Your task to perform on an android device: turn pop-ups off in chrome Image 0: 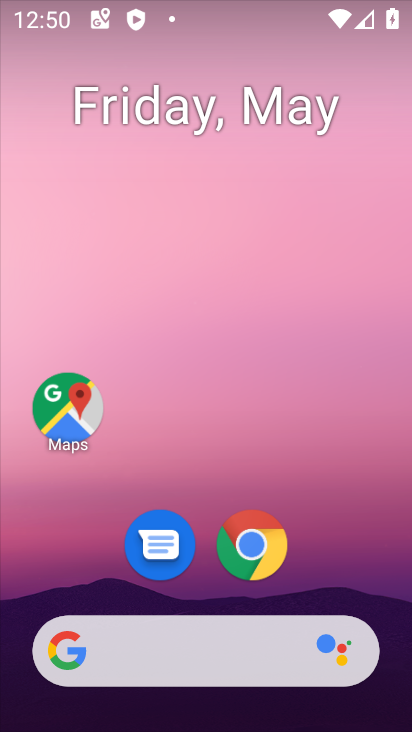
Step 0: click (257, 551)
Your task to perform on an android device: turn pop-ups off in chrome Image 1: 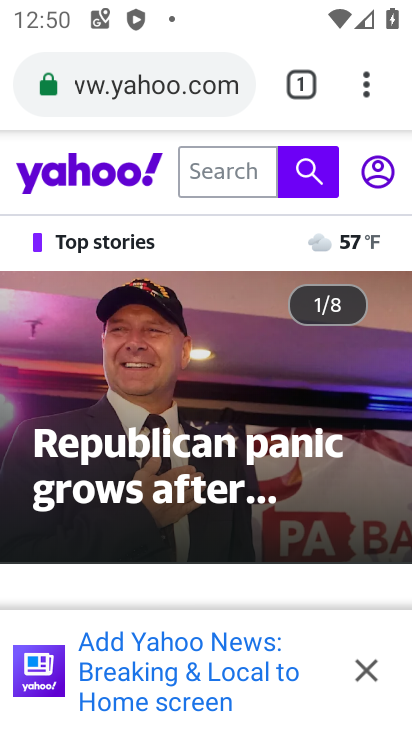
Step 1: click (365, 84)
Your task to perform on an android device: turn pop-ups off in chrome Image 2: 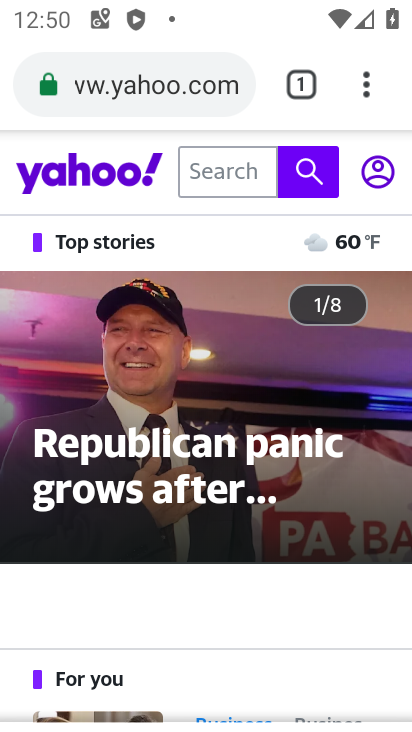
Step 2: click (365, 84)
Your task to perform on an android device: turn pop-ups off in chrome Image 3: 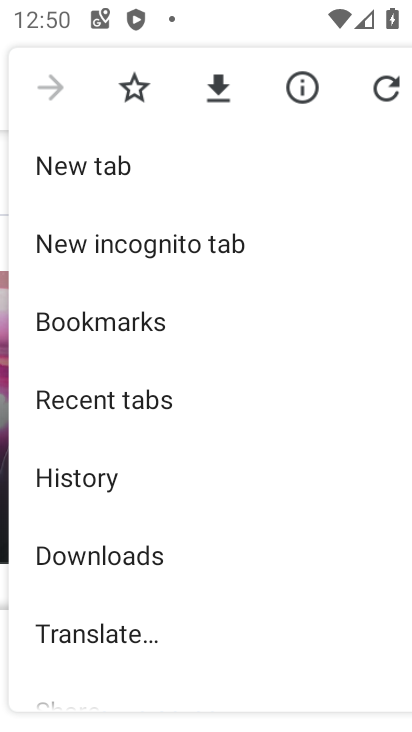
Step 3: drag from (218, 495) to (210, 61)
Your task to perform on an android device: turn pop-ups off in chrome Image 4: 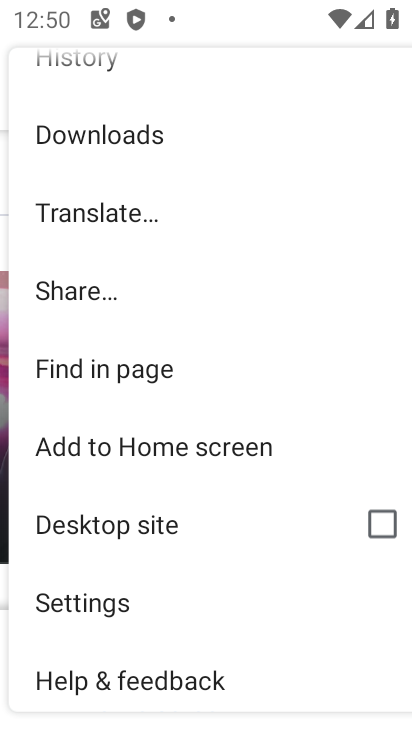
Step 4: drag from (263, 590) to (242, 53)
Your task to perform on an android device: turn pop-ups off in chrome Image 5: 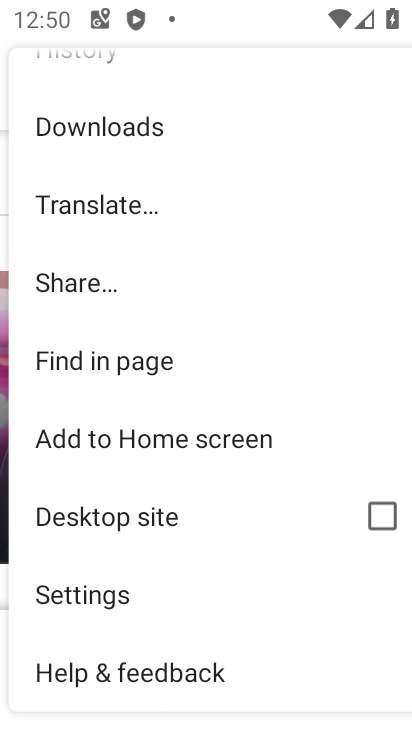
Step 5: click (112, 586)
Your task to perform on an android device: turn pop-ups off in chrome Image 6: 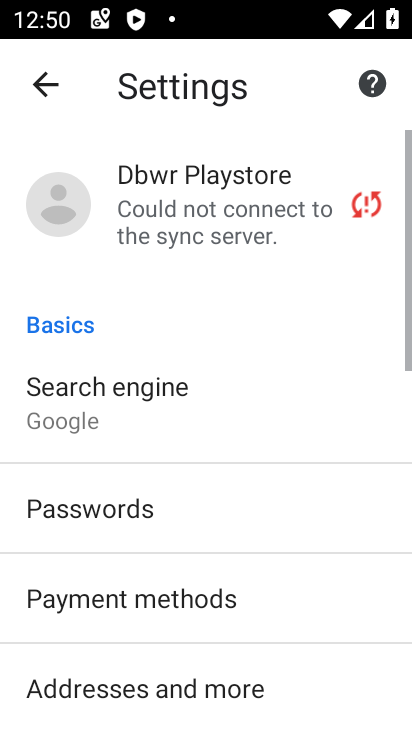
Step 6: drag from (192, 571) to (190, 186)
Your task to perform on an android device: turn pop-ups off in chrome Image 7: 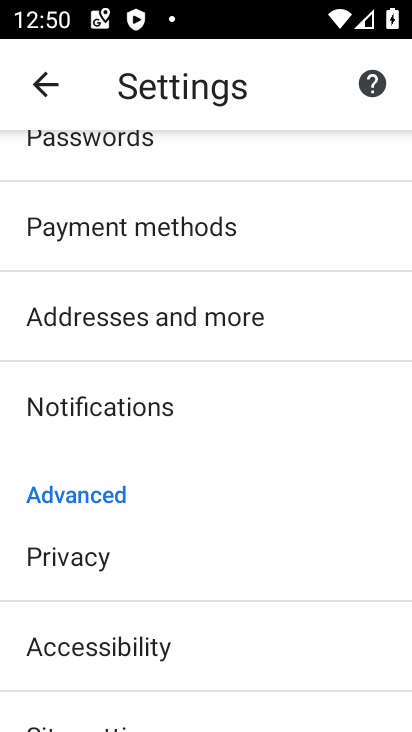
Step 7: drag from (195, 558) to (168, 112)
Your task to perform on an android device: turn pop-ups off in chrome Image 8: 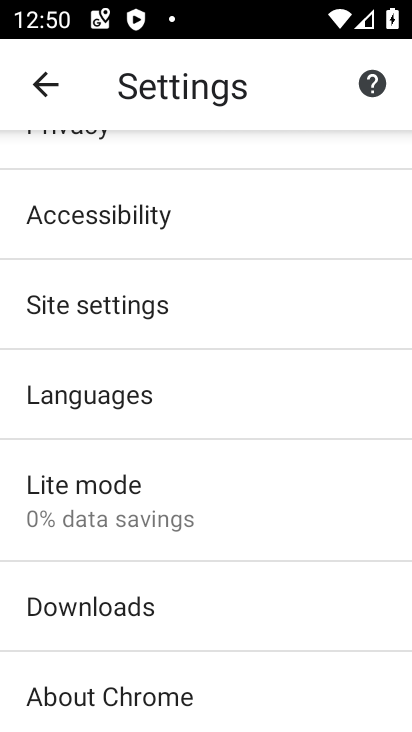
Step 8: click (214, 292)
Your task to perform on an android device: turn pop-ups off in chrome Image 9: 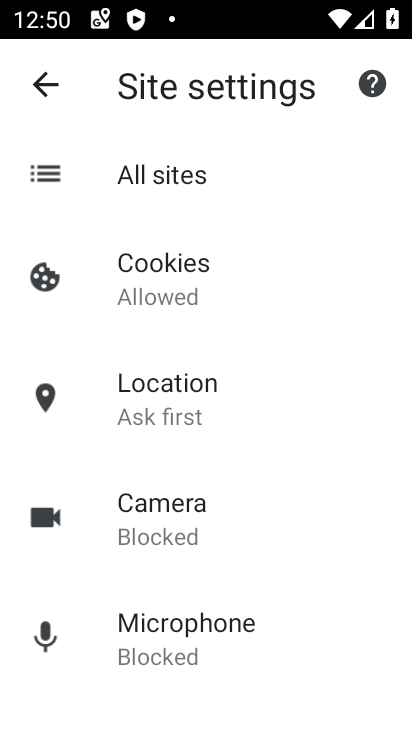
Step 9: drag from (236, 556) to (232, 115)
Your task to perform on an android device: turn pop-ups off in chrome Image 10: 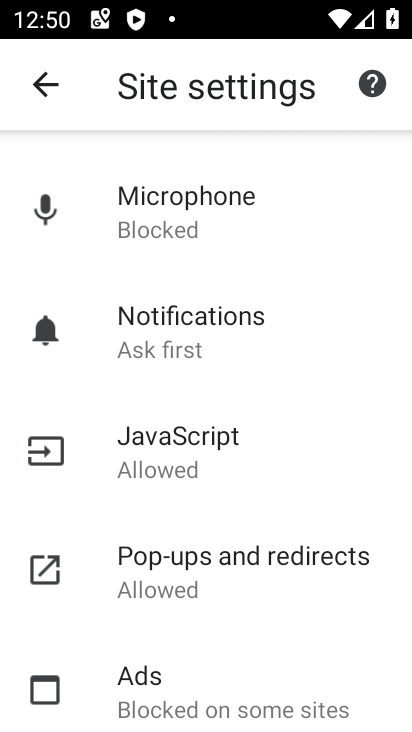
Step 10: drag from (169, 555) to (148, 185)
Your task to perform on an android device: turn pop-ups off in chrome Image 11: 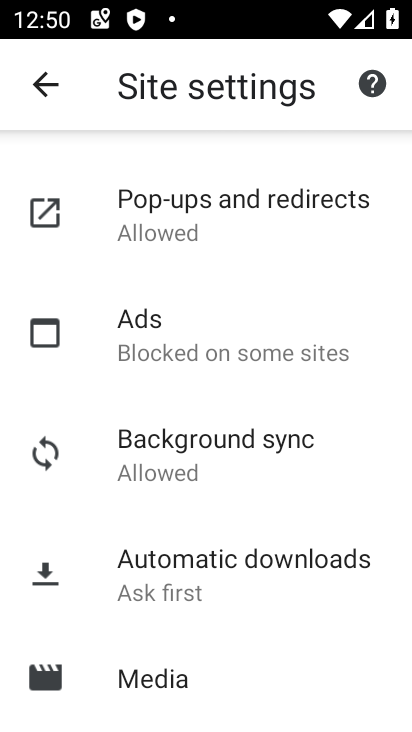
Step 11: click (190, 205)
Your task to perform on an android device: turn pop-ups off in chrome Image 12: 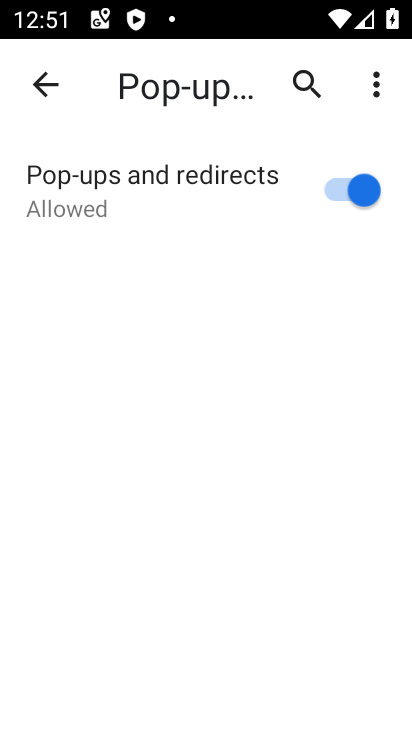
Step 12: click (350, 179)
Your task to perform on an android device: turn pop-ups off in chrome Image 13: 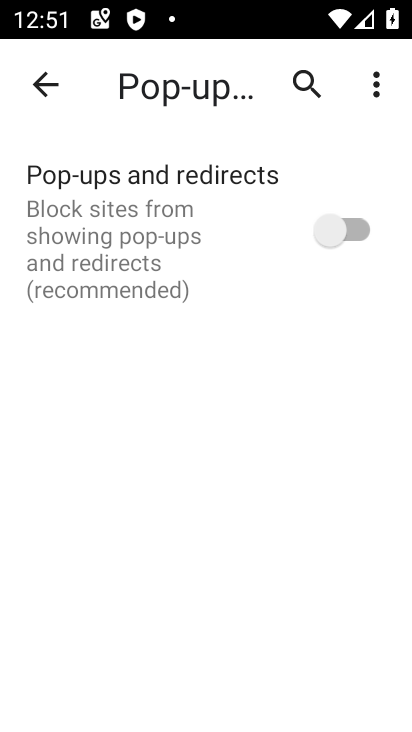
Step 13: task complete